Your task to perform on an android device: Empty the shopping cart on costco. Add razer nari to the cart on costco, then select checkout. Image 0: 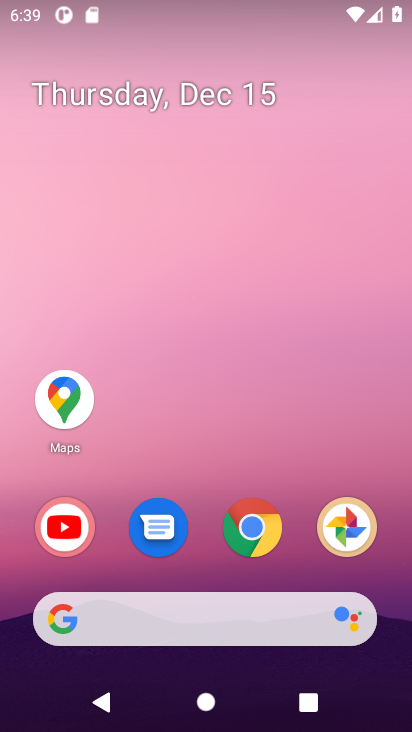
Step 0: click (217, 619)
Your task to perform on an android device: Empty the shopping cart on costco. Add razer nari to the cart on costco, then select checkout. Image 1: 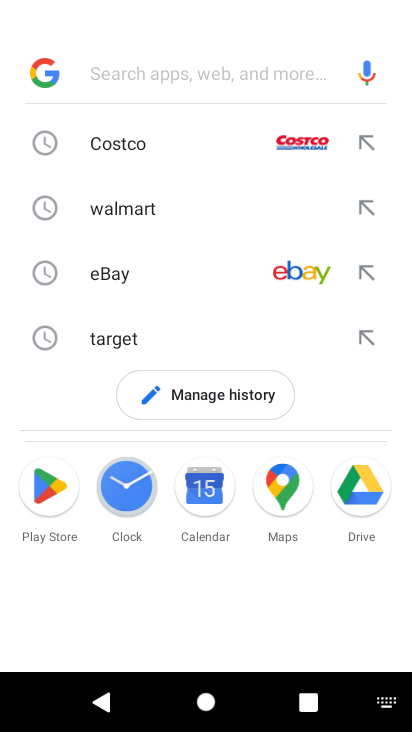
Step 1: click (164, 148)
Your task to perform on an android device: Empty the shopping cart on costco. Add razer nari to the cart on costco, then select checkout. Image 2: 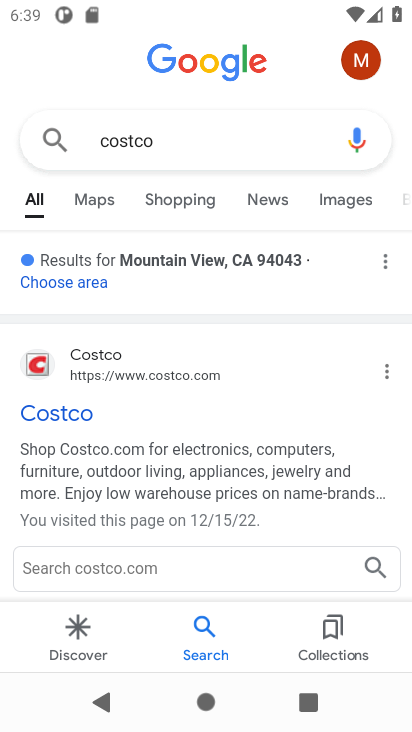
Step 2: click (58, 409)
Your task to perform on an android device: Empty the shopping cart on costco. Add razer nari to the cart on costco, then select checkout. Image 3: 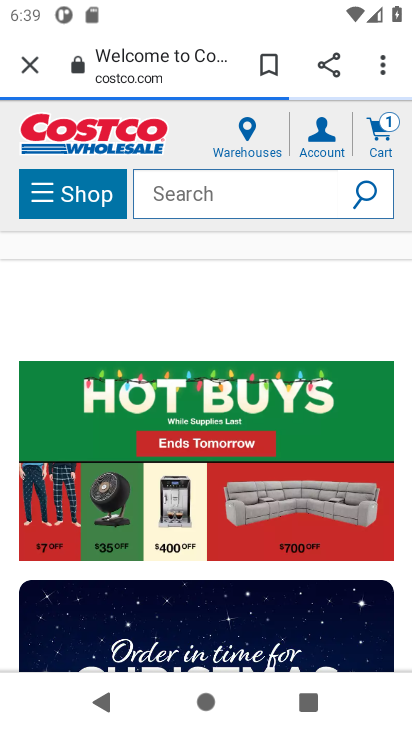
Step 3: click (186, 195)
Your task to perform on an android device: Empty the shopping cart on costco. Add razer nari to the cart on costco, then select checkout. Image 4: 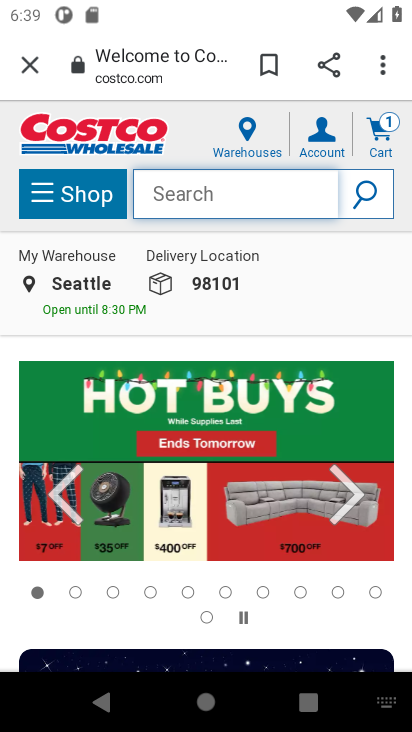
Step 4: type "razer nari"
Your task to perform on an android device: Empty the shopping cart on costco. Add razer nari to the cart on costco, then select checkout. Image 5: 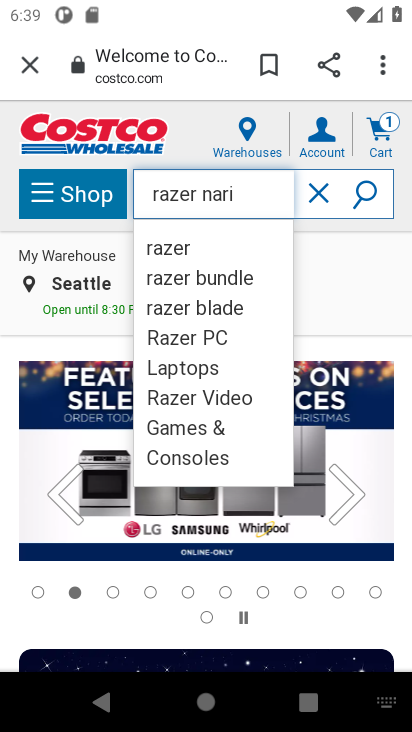
Step 5: click (363, 189)
Your task to perform on an android device: Empty the shopping cart on costco. Add razer nari to the cart on costco, then select checkout. Image 6: 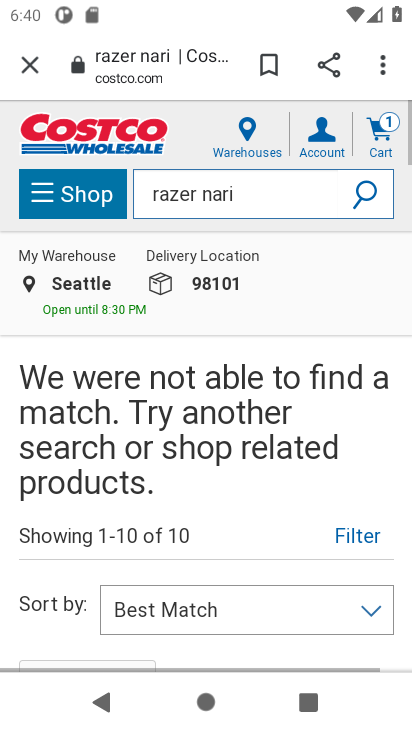
Step 6: drag from (219, 532) to (275, 163)
Your task to perform on an android device: Empty the shopping cart on costco. Add razer nari to the cart on costco, then select checkout. Image 7: 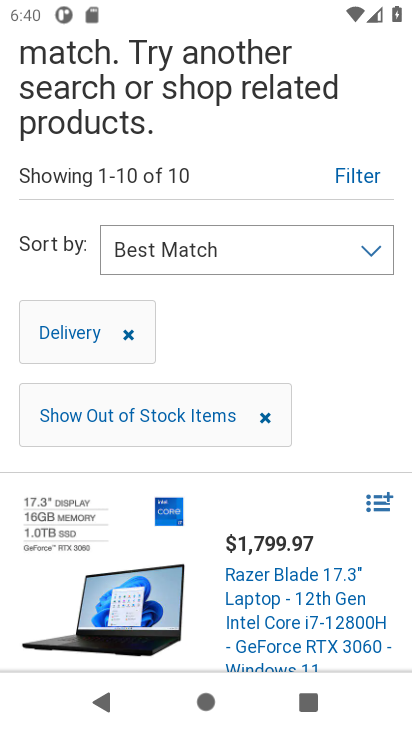
Step 7: click (273, 599)
Your task to perform on an android device: Empty the shopping cart on costco. Add razer nari to the cart on costco, then select checkout. Image 8: 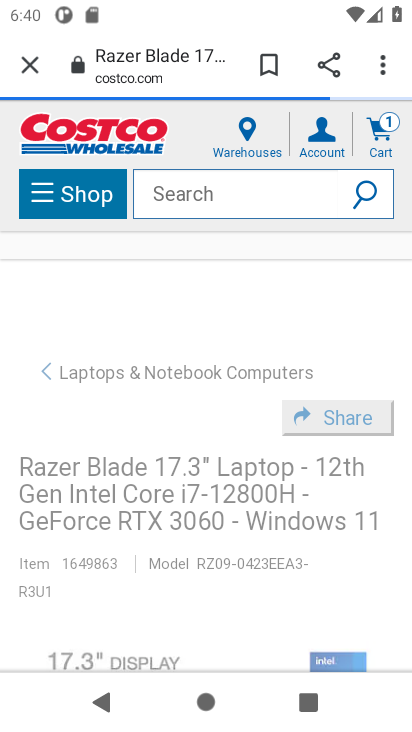
Step 8: drag from (230, 586) to (258, 205)
Your task to perform on an android device: Empty the shopping cart on costco. Add razer nari to the cart on costco, then select checkout. Image 9: 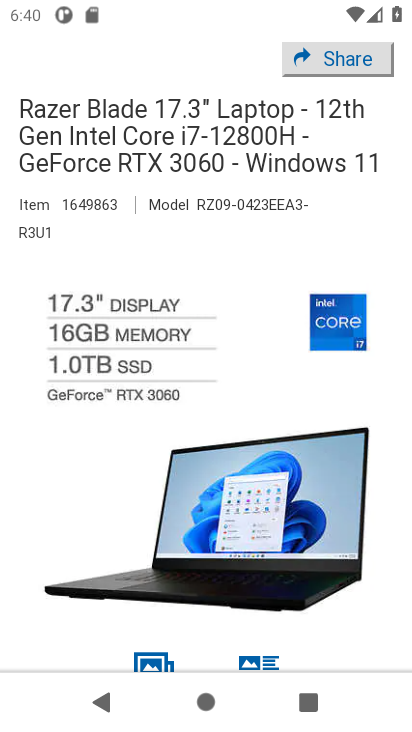
Step 9: drag from (158, 629) to (206, 145)
Your task to perform on an android device: Empty the shopping cart on costco. Add razer nari to the cart on costco, then select checkout. Image 10: 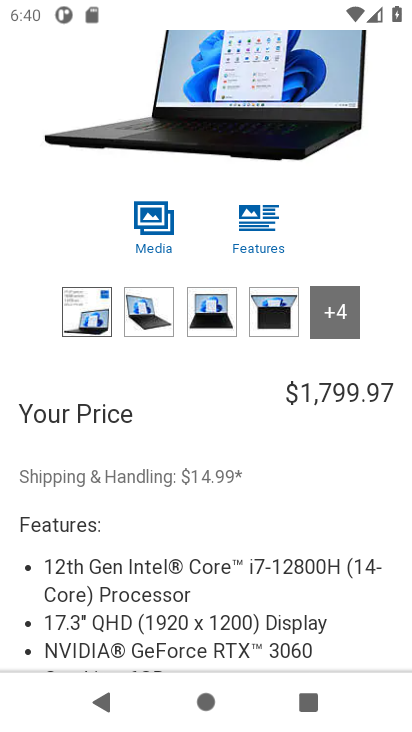
Step 10: drag from (203, 594) to (250, 199)
Your task to perform on an android device: Empty the shopping cart on costco. Add razer nari to the cart on costco, then select checkout. Image 11: 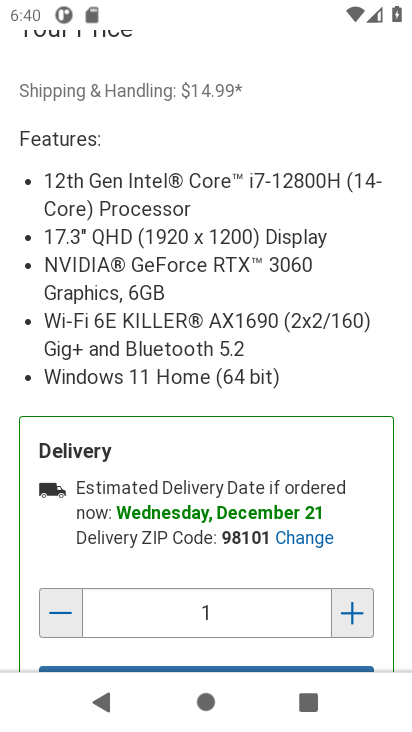
Step 11: drag from (230, 578) to (239, 320)
Your task to perform on an android device: Empty the shopping cart on costco. Add razer nari to the cart on costco, then select checkout. Image 12: 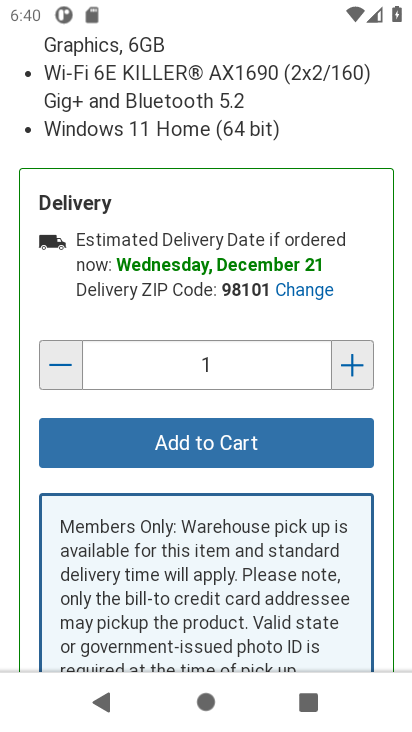
Step 12: click (239, 424)
Your task to perform on an android device: Empty the shopping cart on costco. Add razer nari to the cart on costco, then select checkout. Image 13: 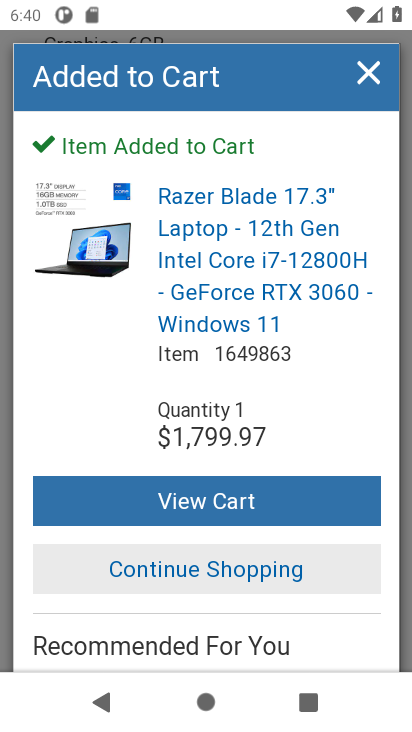
Step 13: task complete